Your task to perform on an android device: open app "Google Pay: Save, Pay, Manage" (install if not already installed) Image 0: 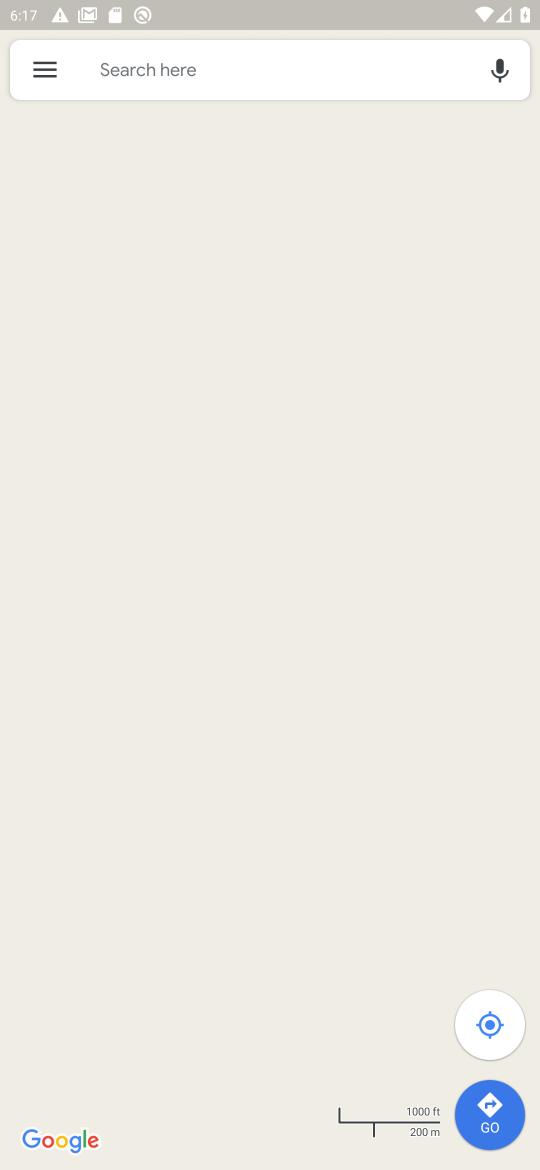
Step 0: press home button
Your task to perform on an android device: open app "Google Pay: Save, Pay, Manage" (install if not already installed) Image 1: 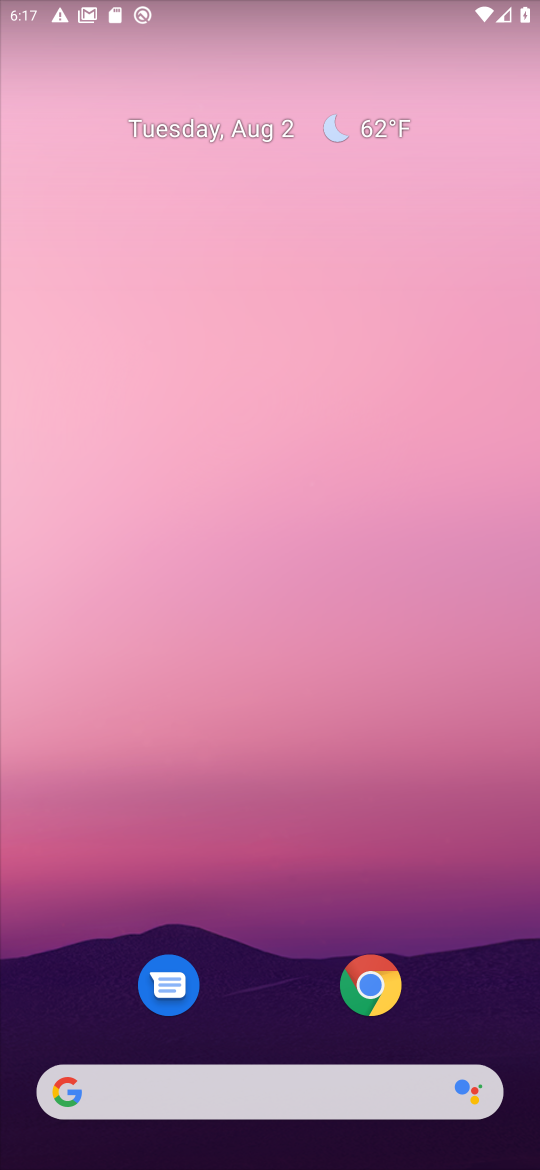
Step 1: drag from (261, 989) to (282, 377)
Your task to perform on an android device: open app "Google Pay: Save, Pay, Manage" (install if not already installed) Image 2: 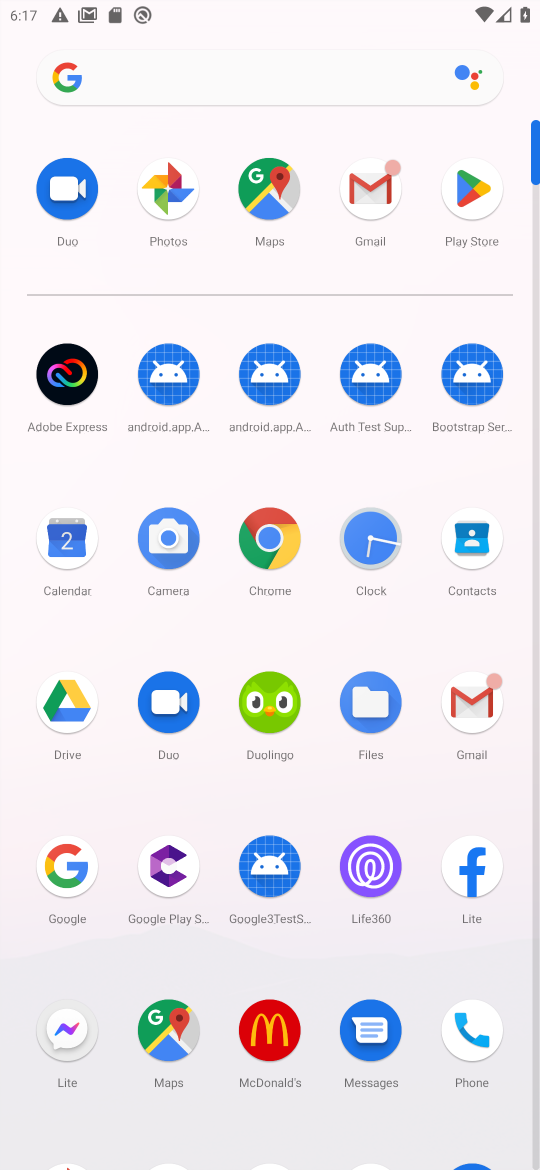
Step 2: click (455, 184)
Your task to perform on an android device: open app "Google Pay: Save, Pay, Manage" (install if not already installed) Image 3: 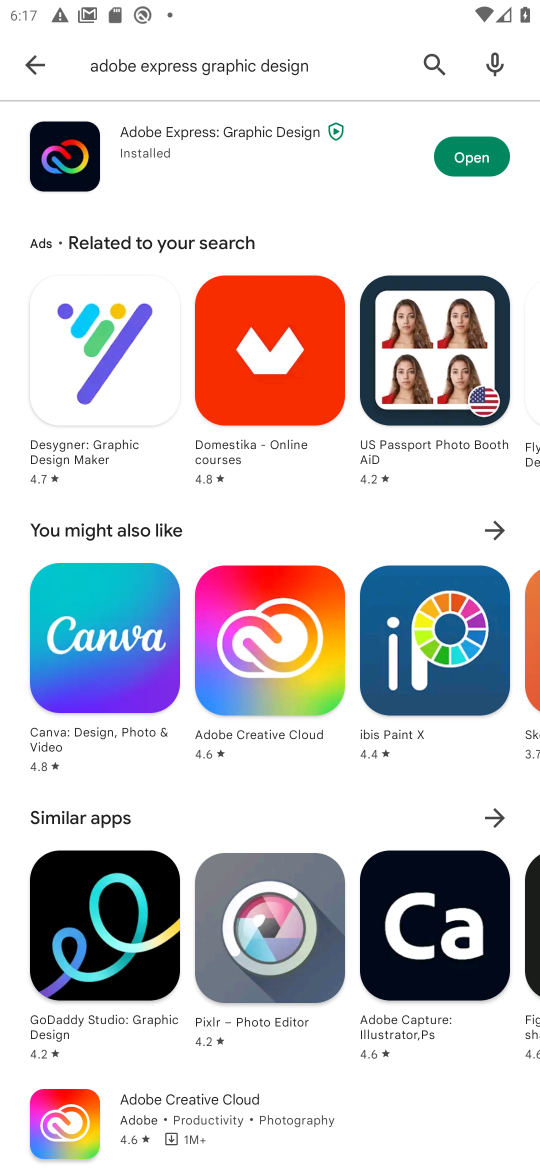
Step 3: click (418, 70)
Your task to perform on an android device: open app "Google Pay: Save, Pay, Manage" (install if not already installed) Image 4: 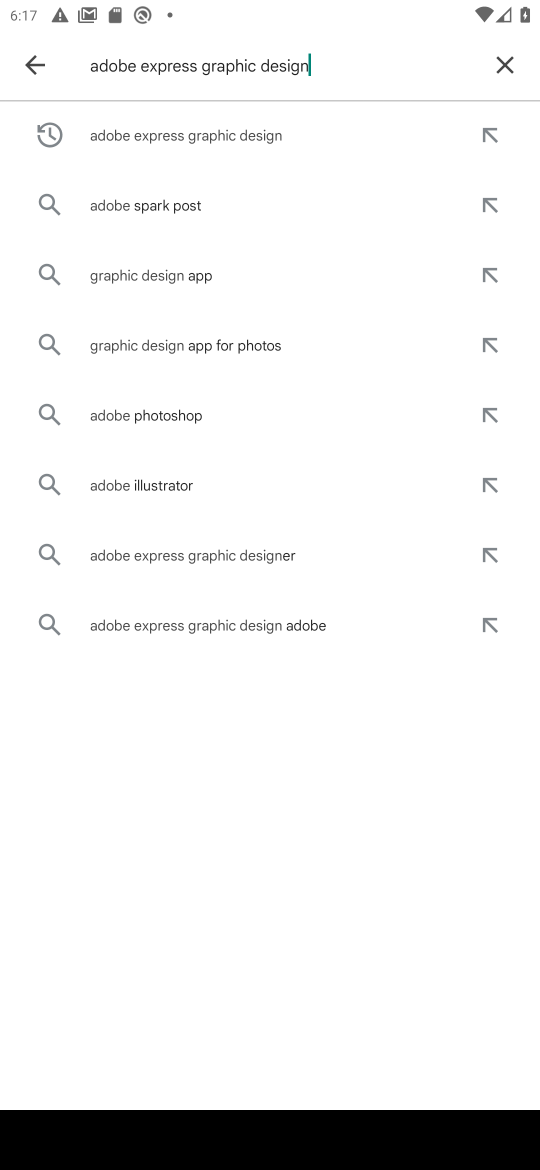
Step 4: click (507, 65)
Your task to perform on an android device: open app "Google Pay: Save, Pay, Manage" (install if not already installed) Image 5: 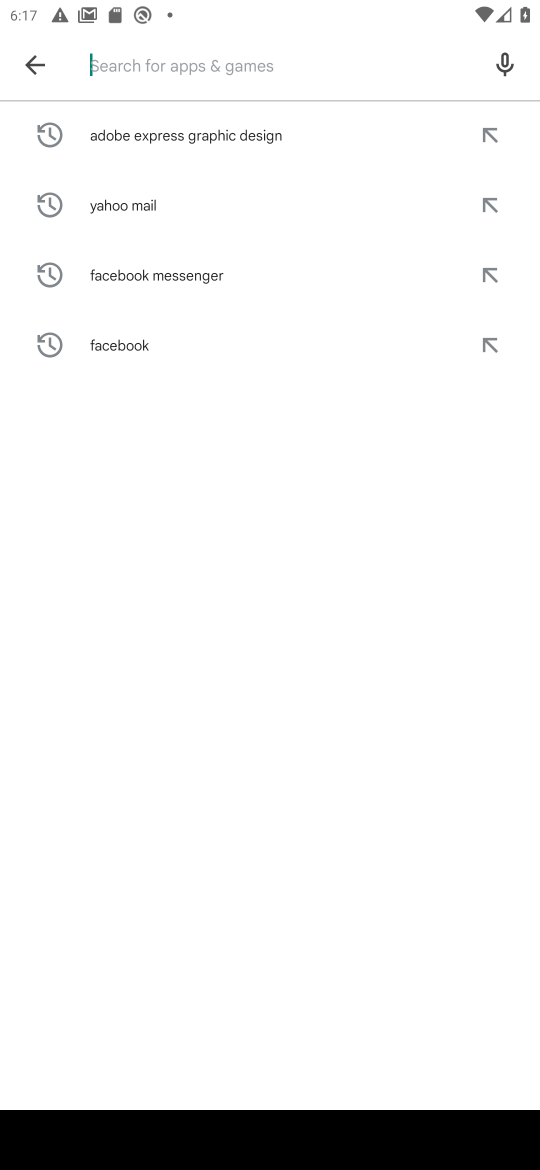
Step 5: type "Google Pay: Save, Pay, Manage"
Your task to perform on an android device: open app "Google Pay: Save, Pay, Manage" (install if not already installed) Image 6: 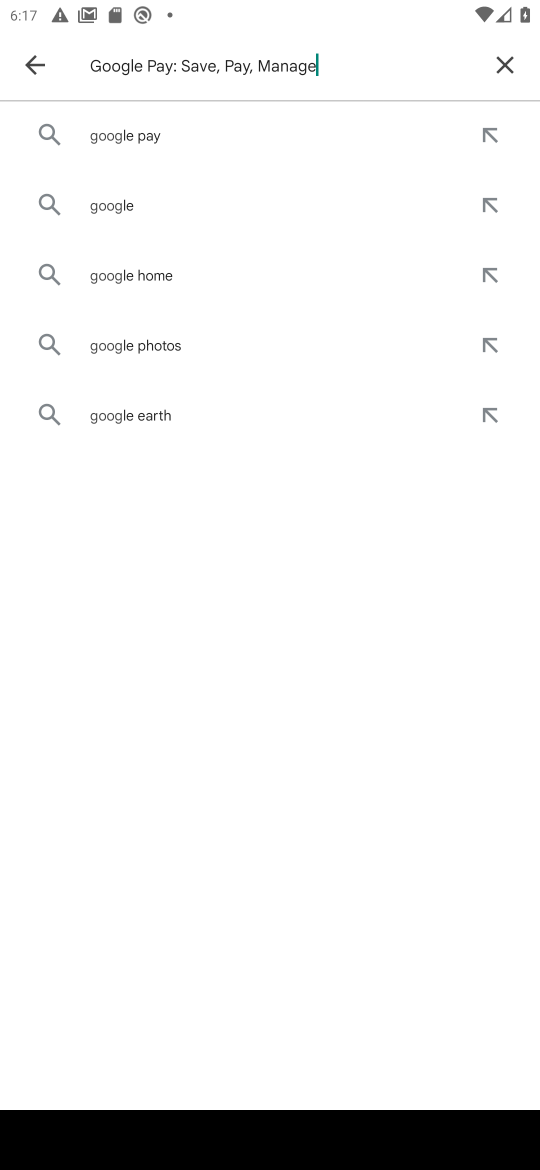
Step 6: type ""
Your task to perform on an android device: open app "Google Pay: Save, Pay, Manage" (install if not already installed) Image 7: 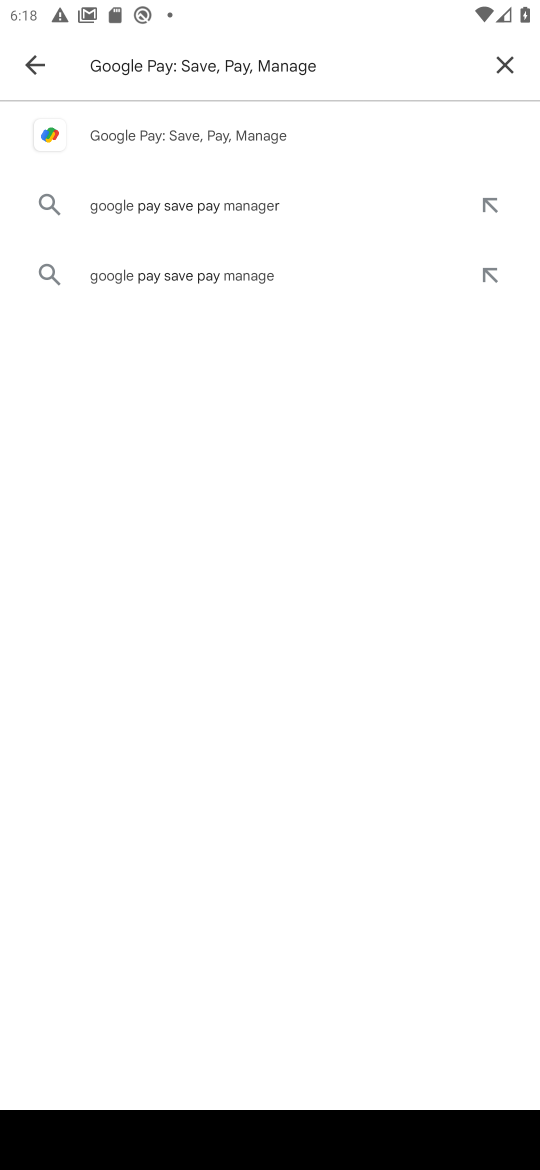
Step 7: click (265, 150)
Your task to perform on an android device: open app "Google Pay: Save, Pay, Manage" (install if not already installed) Image 8: 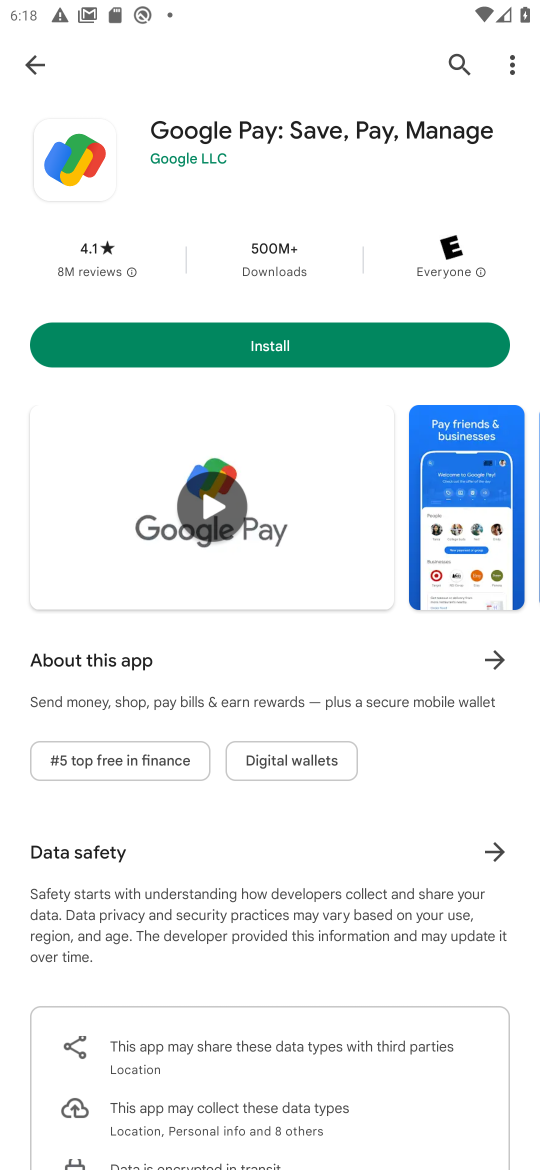
Step 8: click (282, 339)
Your task to perform on an android device: open app "Google Pay: Save, Pay, Manage" (install if not already installed) Image 9: 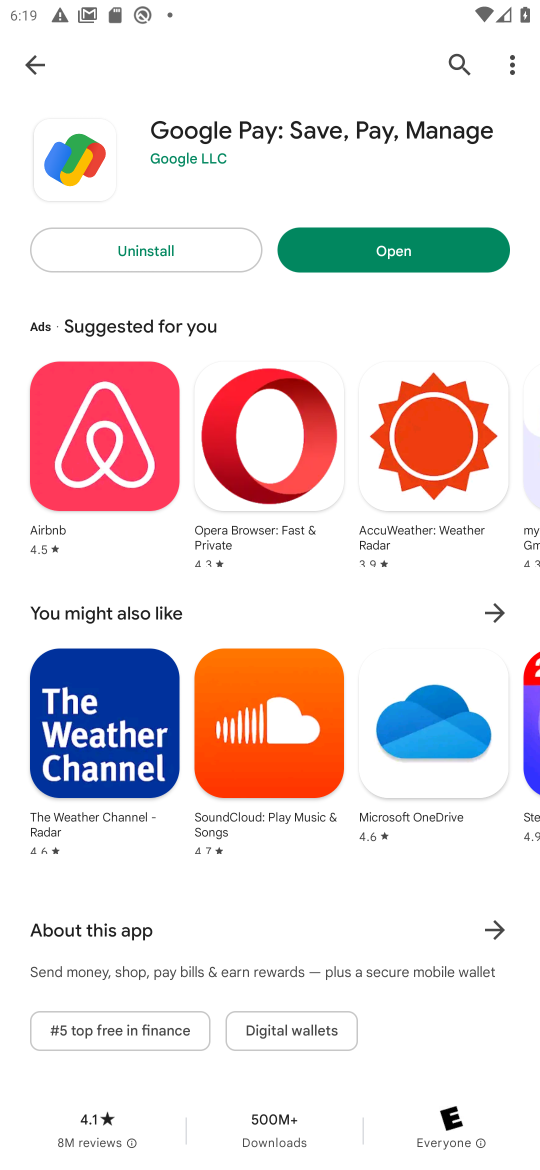
Step 9: click (375, 255)
Your task to perform on an android device: open app "Google Pay: Save, Pay, Manage" (install if not already installed) Image 10: 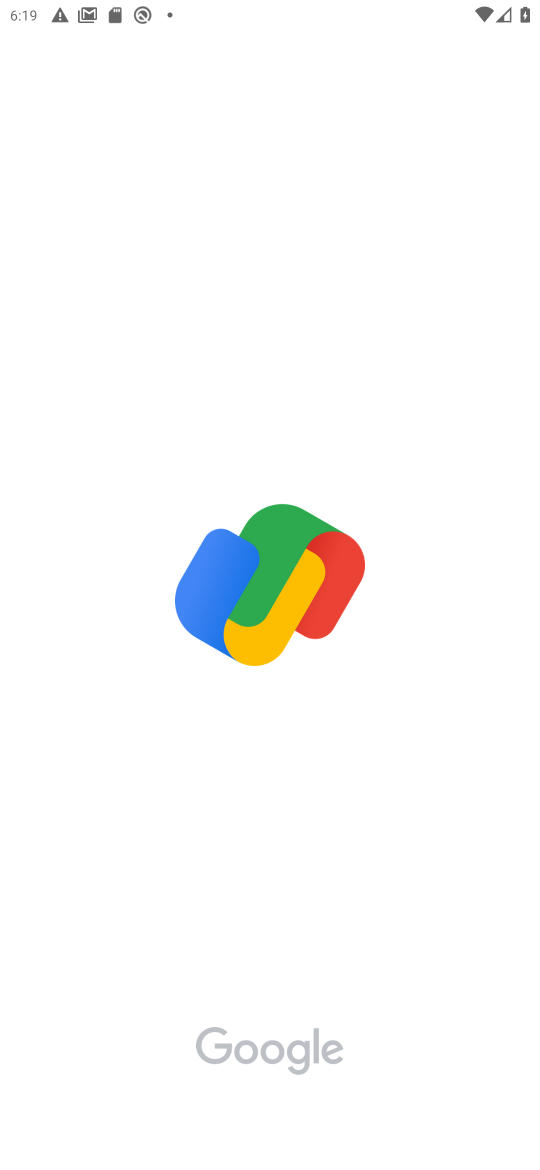
Step 10: task complete